Your task to perform on an android device: Open notification settings Image 0: 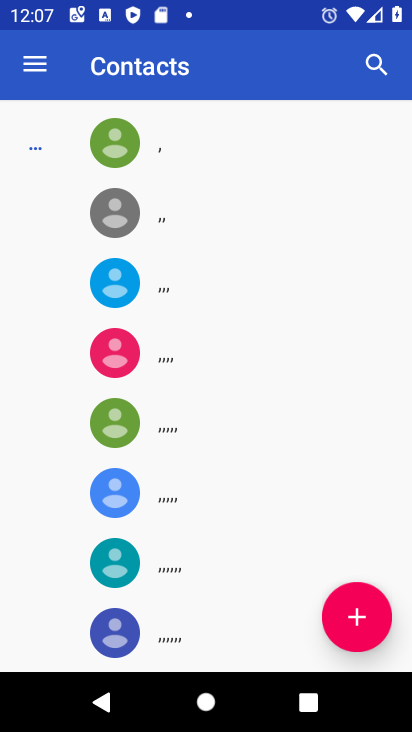
Step 0: press home button
Your task to perform on an android device: Open notification settings Image 1: 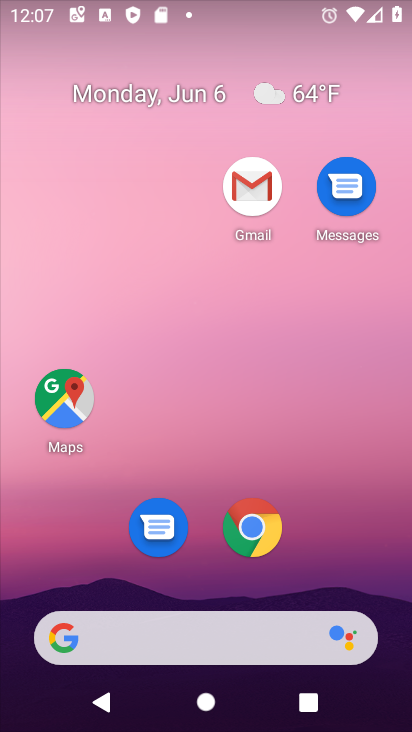
Step 1: drag from (318, 544) to (266, 59)
Your task to perform on an android device: Open notification settings Image 2: 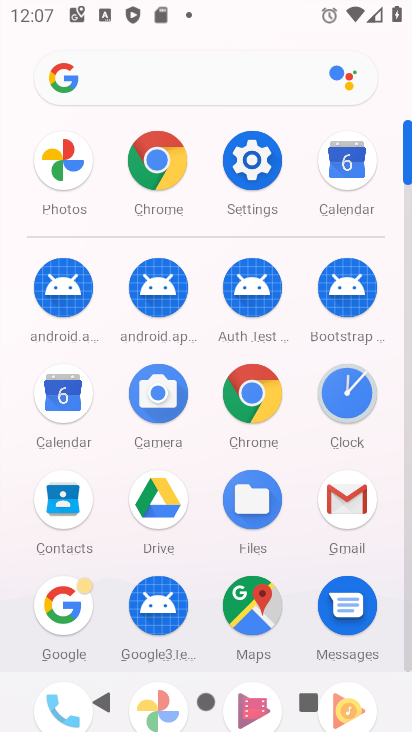
Step 2: click (260, 157)
Your task to perform on an android device: Open notification settings Image 3: 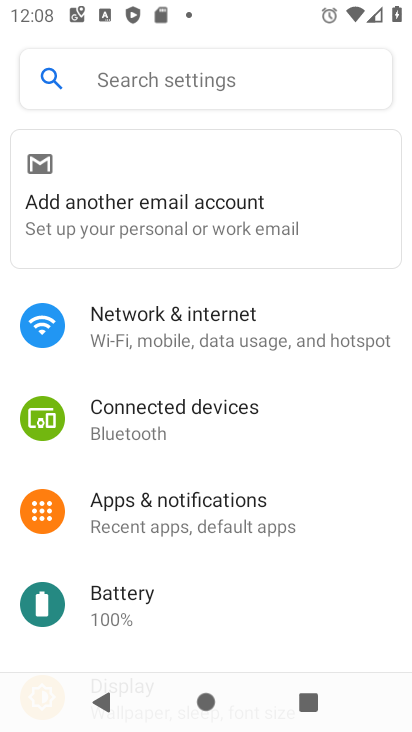
Step 3: click (192, 512)
Your task to perform on an android device: Open notification settings Image 4: 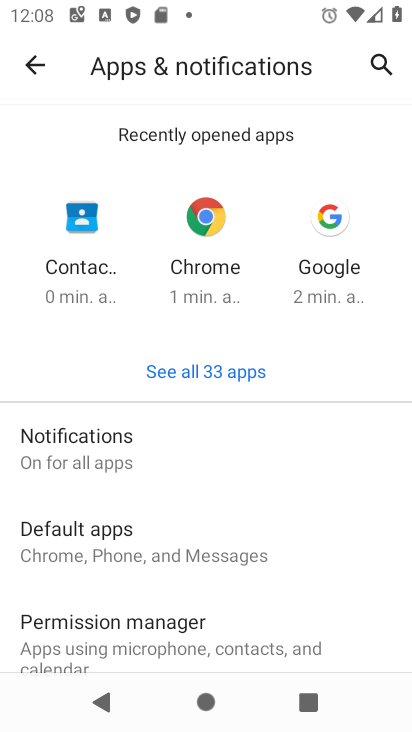
Step 4: task complete